Your task to perform on an android device: Search for seafood restaurants on Google Maps Image 0: 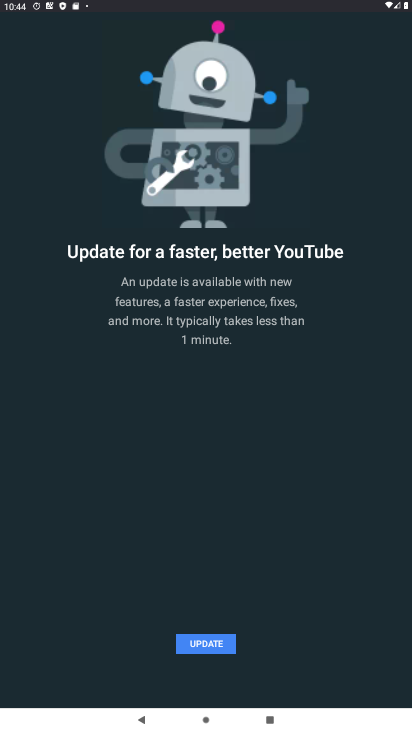
Step 0: drag from (276, 191) to (300, 124)
Your task to perform on an android device: Search for seafood restaurants on Google Maps Image 1: 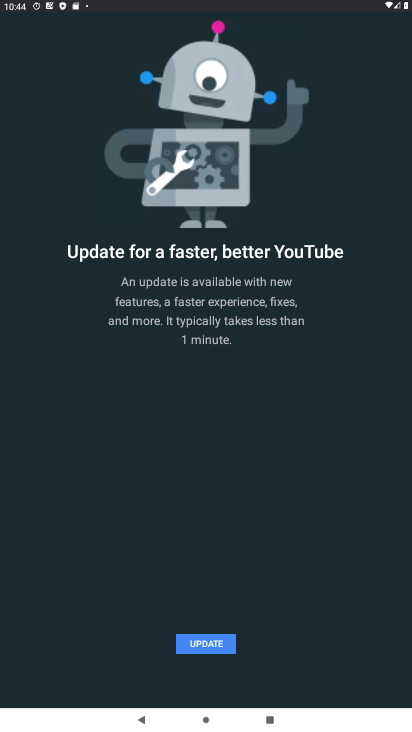
Step 1: drag from (224, 567) to (296, 185)
Your task to perform on an android device: Search for seafood restaurants on Google Maps Image 2: 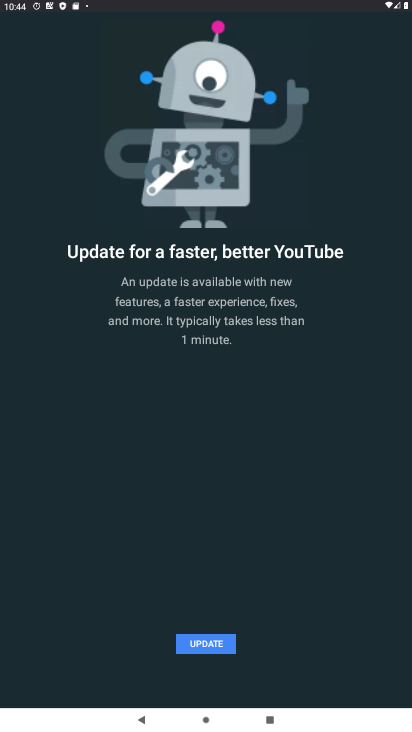
Step 2: press home button
Your task to perform on an android device: Search for seafood restaurants on Google Maps Image 3: 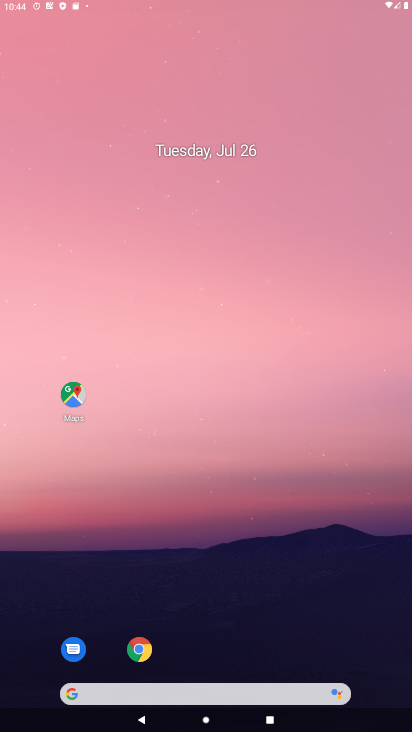
Step 3: drag from (228, 599) to (265, 86)
Your task to perform on an android device: Search for seafood restaurants on Google Maps Image 4: 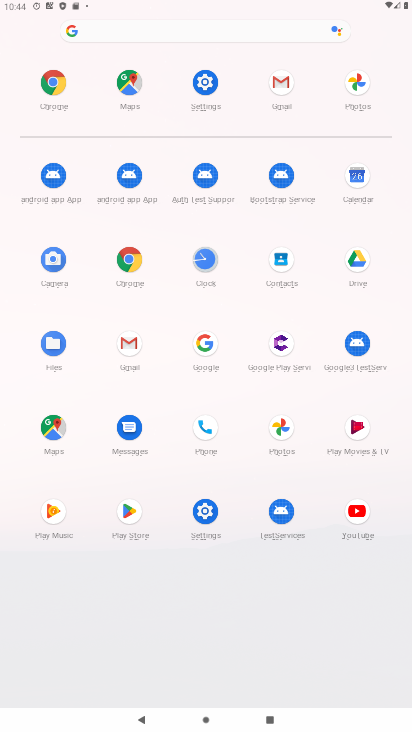
Step 4: click (47, 431)
Your task to perform on an android device: Search for seafood restaurants on Google Maps Image 5: 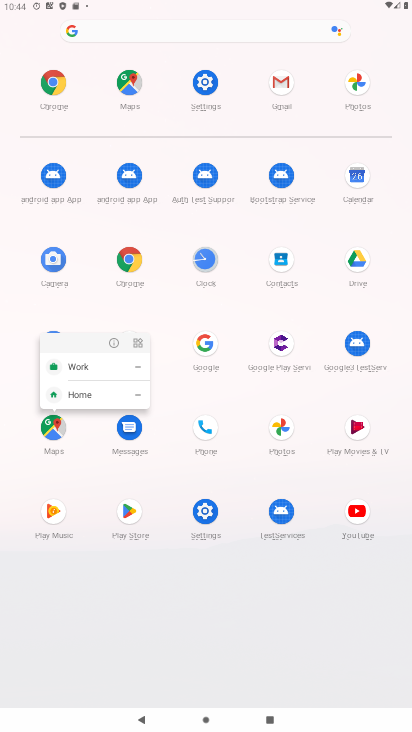
Step 5: click (107, 337)
Your task to perform on an android device: Search for seafood restaurants on Google Maps Image 6: 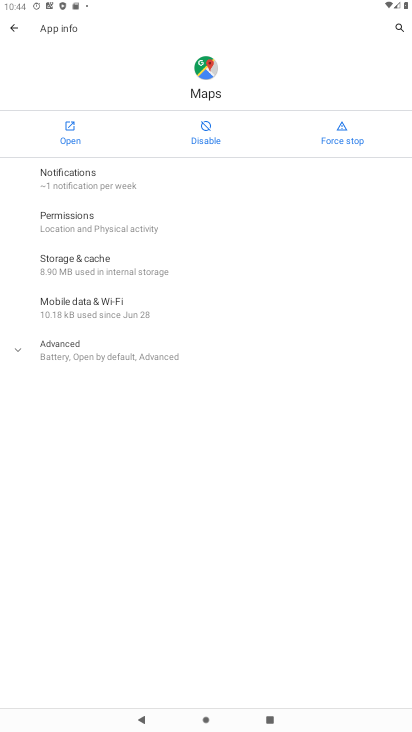
Step 6: click (70, 129)
Your task to perform on an android device: Search for seafood restaurants on Google Maps Image 7: 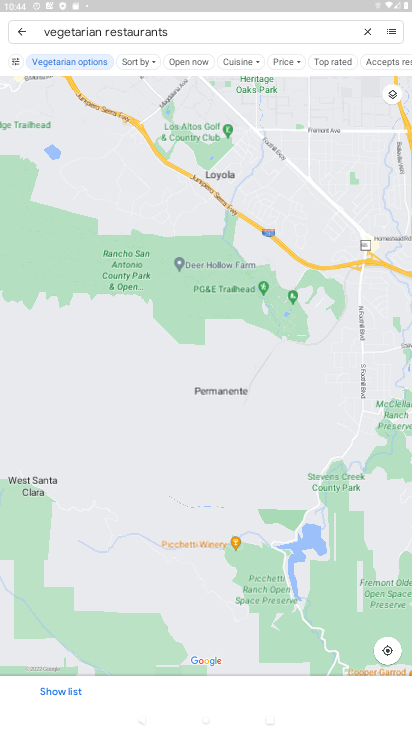
Step 7: click (368, 37)
Your task to perform on an android device: Search for seafood restaurants on Google Maps Image 8: 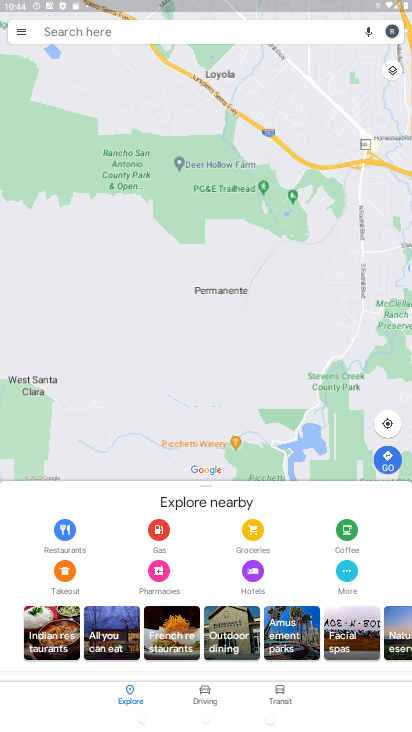
Step 8: click (132, 33)
Your task to perform on an android device: Search for seafood restaurants on Google Maps Image 9: 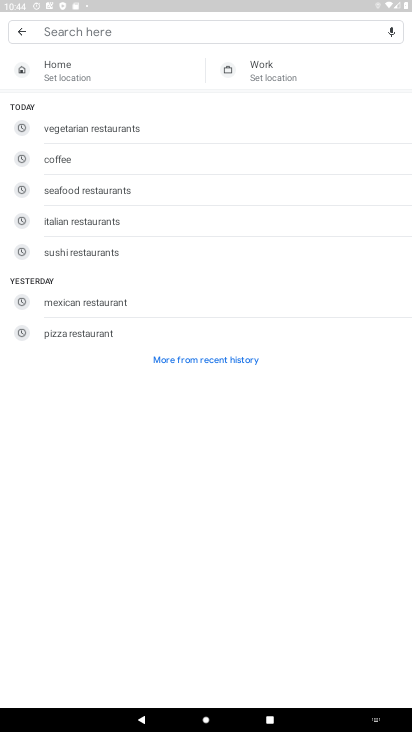
Step 9: click (73, 194)
Your task to perform on an android device: Search for seafood restaurants on Google Maps Image 10: 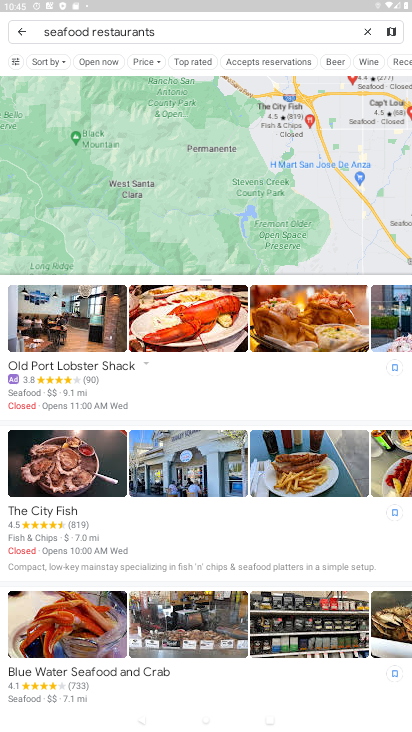
Step 10: click (371, 29)
Your task to perform on an android device: Search for seafood restaurants on Google Maps Image 11: 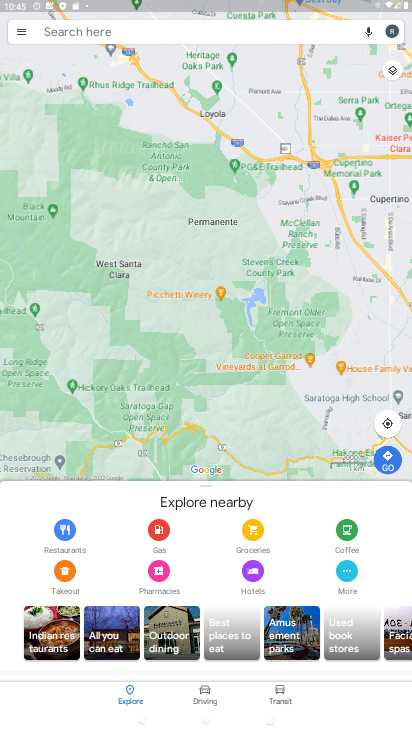
Step 11: click (118, 27)
Your task to perform on an android device: Search for seafood restaurants on Google Maps Image 12: 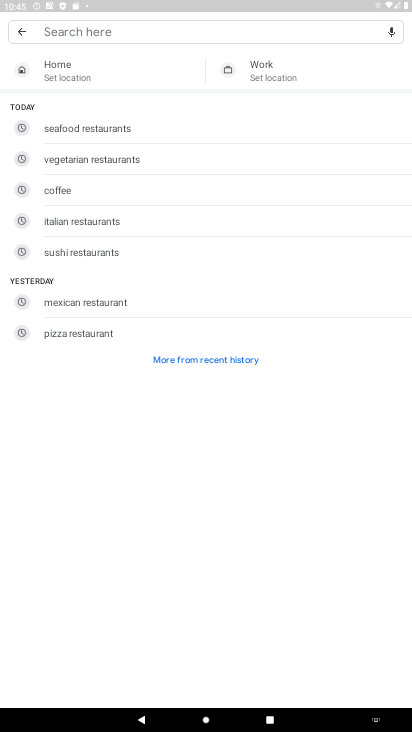
Step 12: click (68, 128)
Your task to perform on an android device: Search for seafood restaurants on Google Maps Image 13: 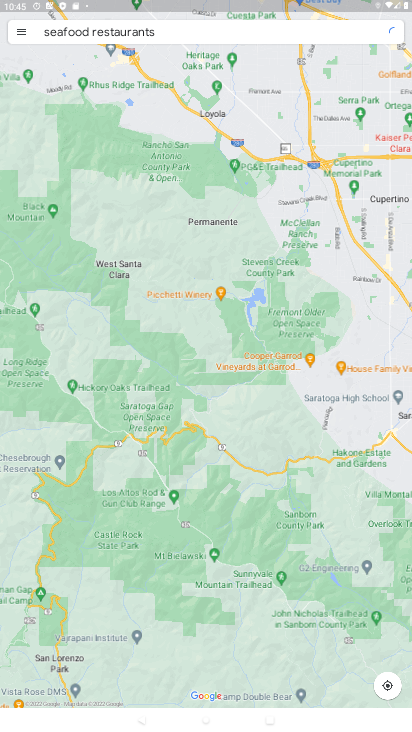
Step 13: task complete